Your task to perform on an android device: Go to location settings Image 0: 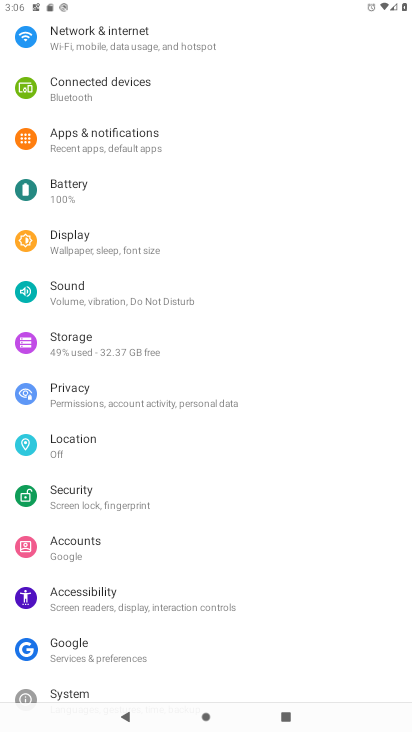
Step 0: click (114, 451)
Your task to perform on an android device: Go to location settings Image 1: 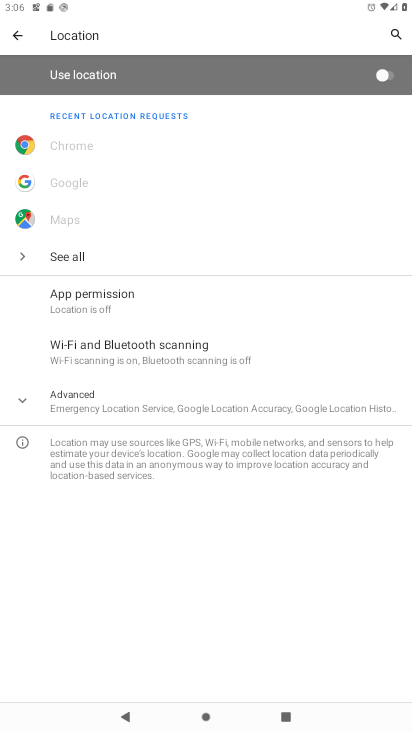
Step 1: task complete